Your task to perform on an android device: open app "Chime – Mobile Banking" (install if not already installed) Image 0: 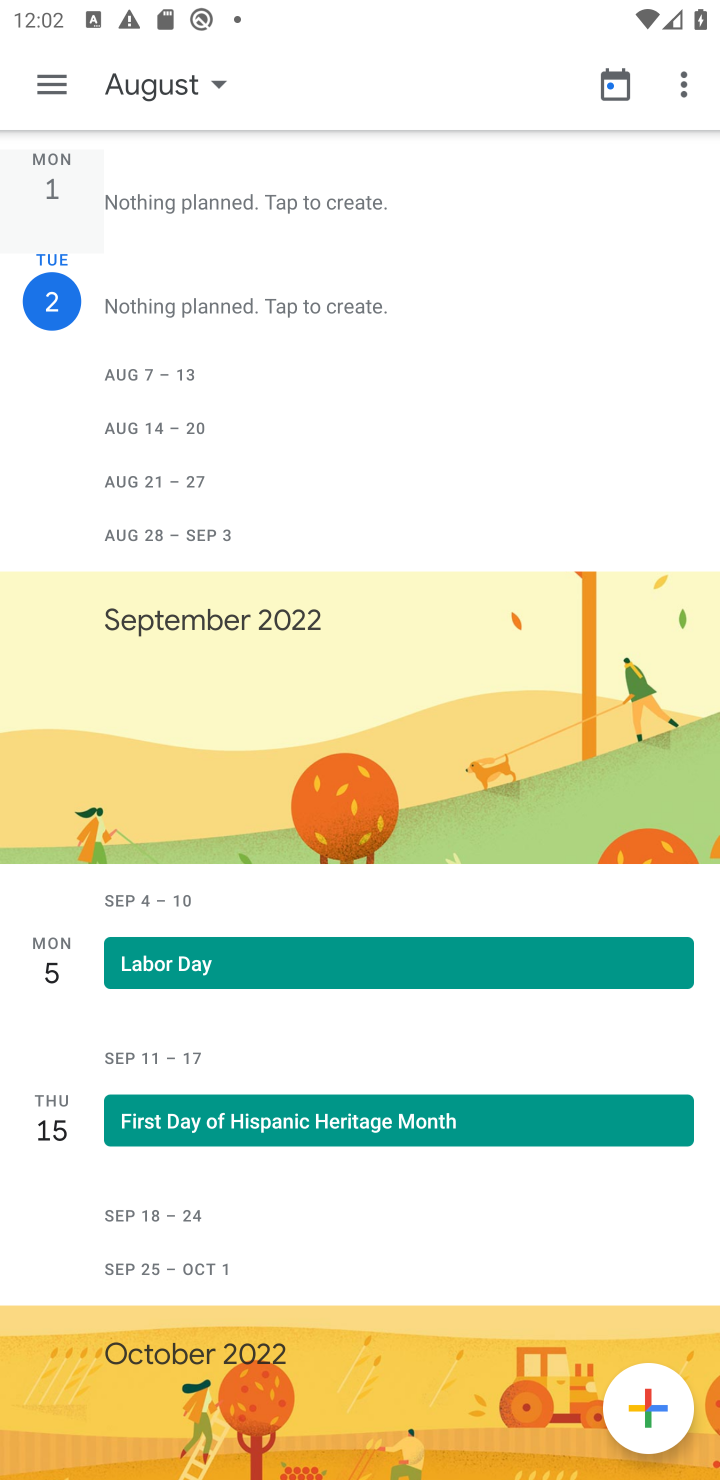
Step 0: press home button
Your task to perform on an android device: open app "Chime – Mobile Banking" (install if not already installed) Image 1: 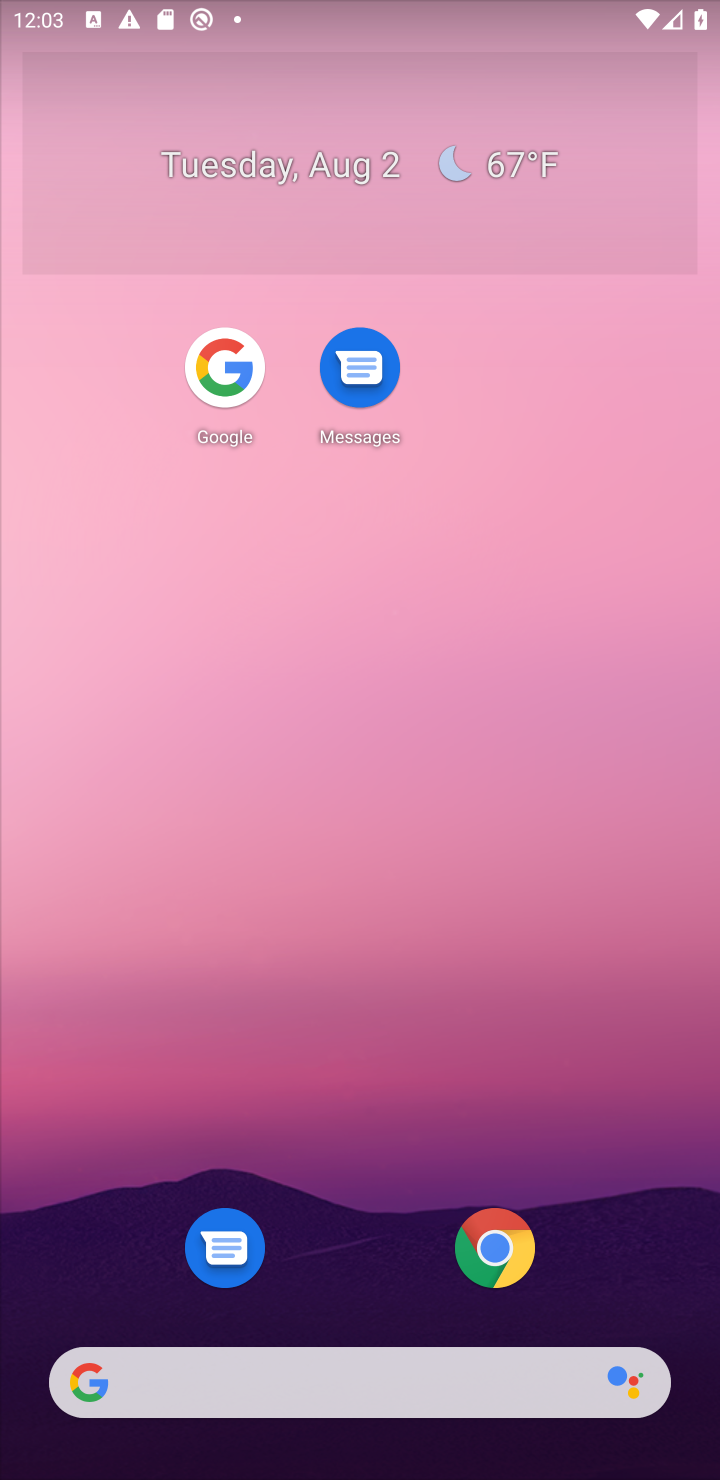
Step 1: drag from (396, 1056) to (478, 165)
Your task to perform on an android device: open app "Chime – Mobile Banking" (install if not already installed) Image 2: 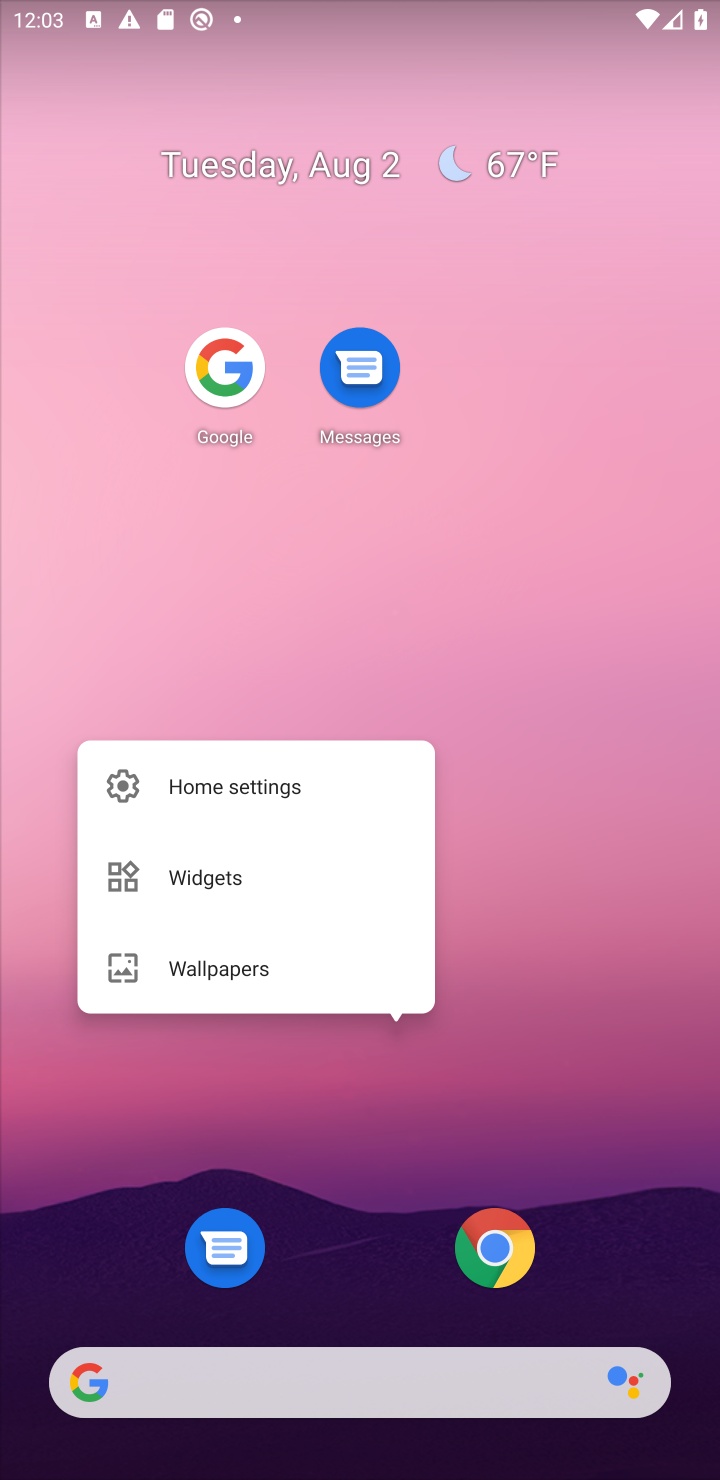
Step 2: click (587, 752)
Your task to perform on an android device: open app "Chime – Mobile Banking" (install if not already installed) Image 3: 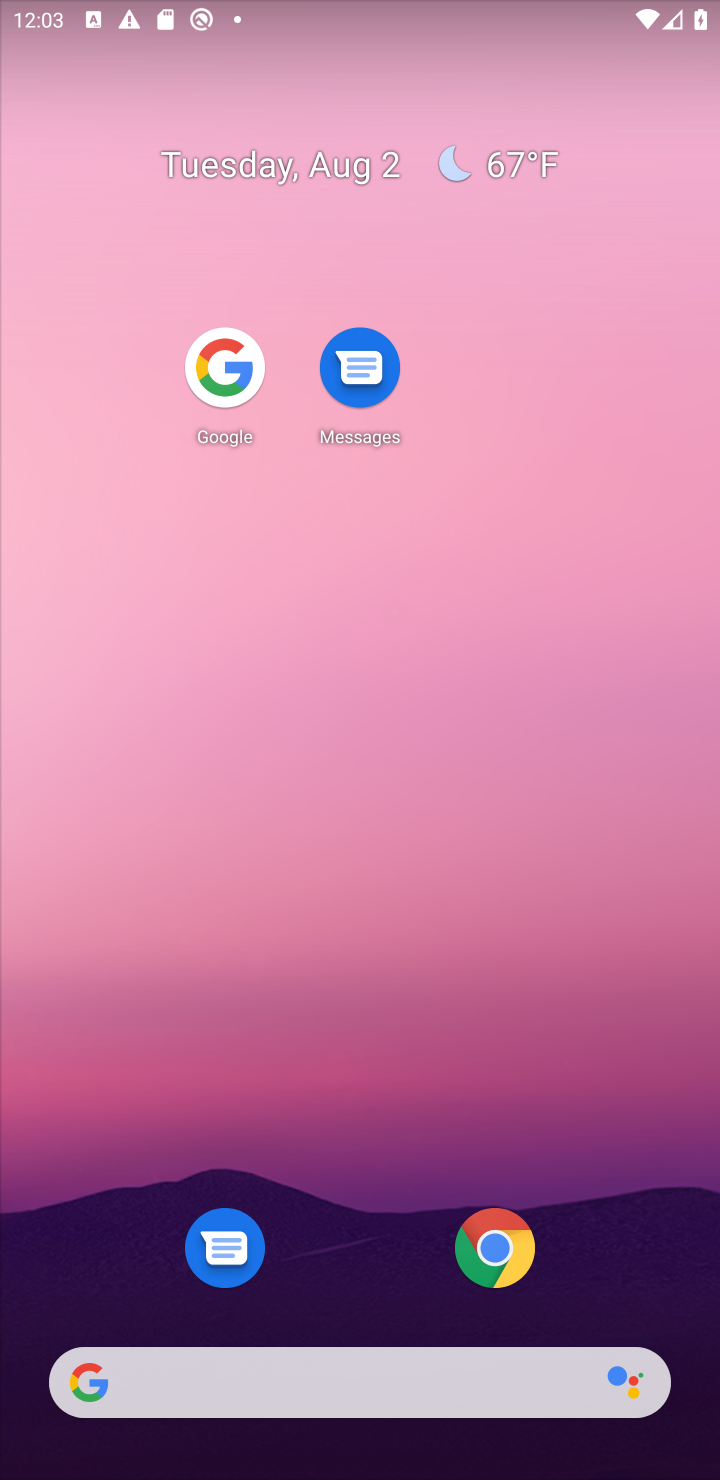
Step 3: drag from (382, 917) to (445, 293)
Your task to perform on an android device: open app "Chime – Mobile Banking" (install if not already installed) Image 4: 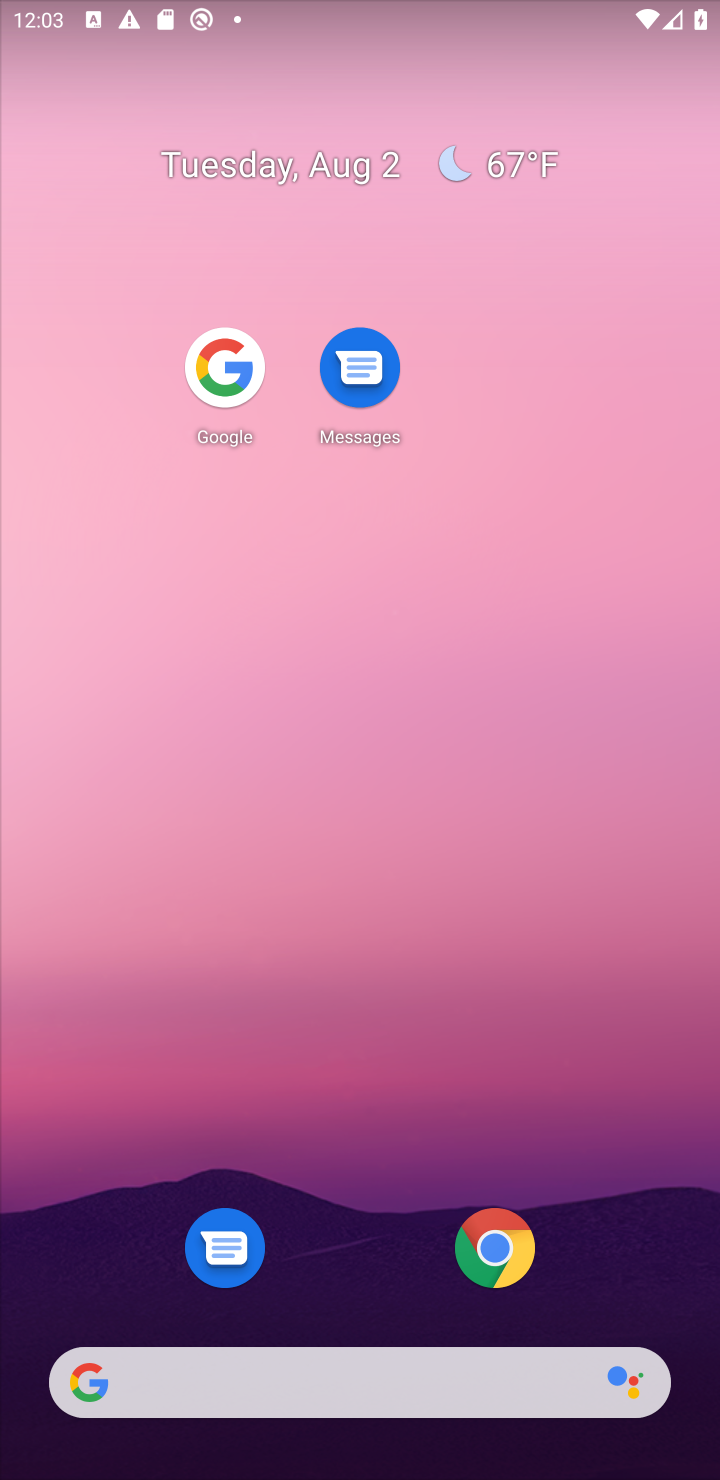
Step 4: drag from (402, 918) to (497, 227)
Your task to perform on an android device: open app "Chime – Mobile Banking" (install if not already installed) Image 5: 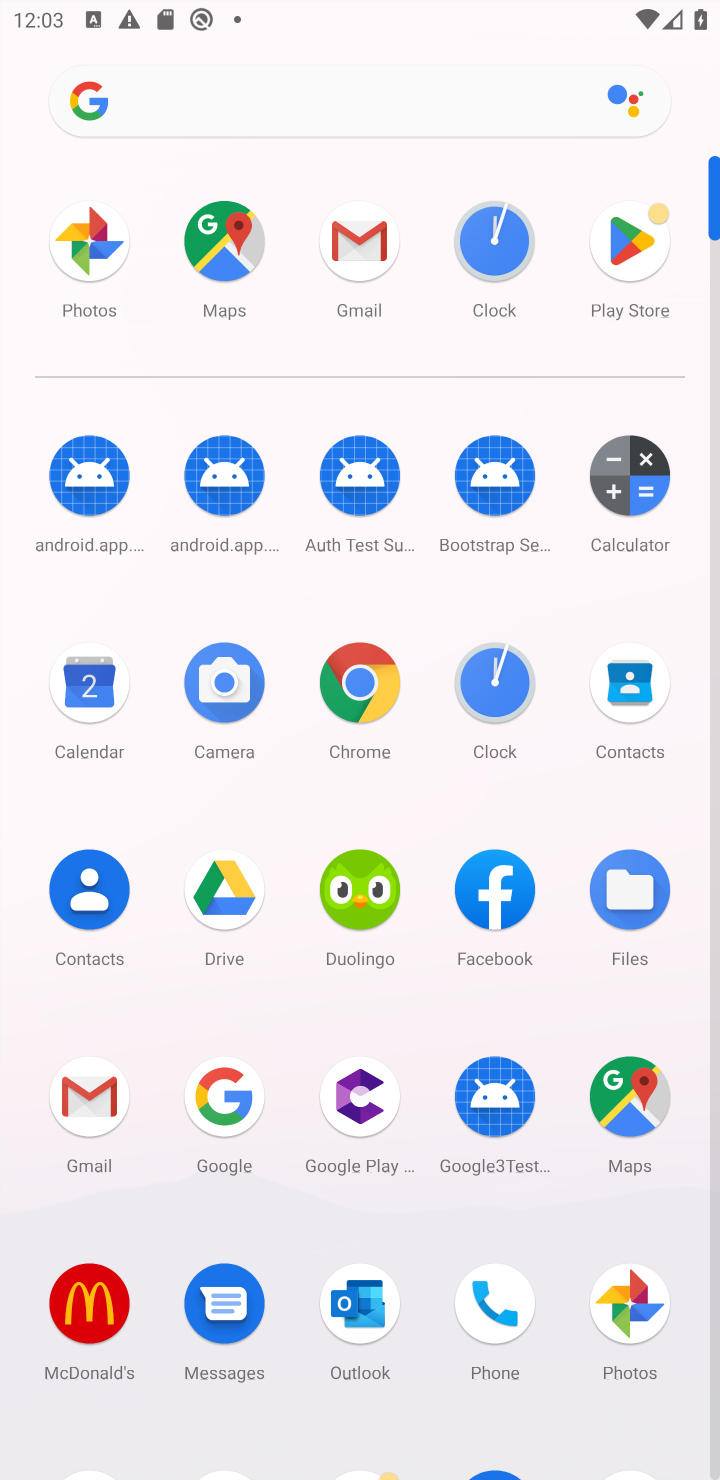
Step 5: drag from (393, 1195) to (403, 523)
Your task to perform on an android device: open app "Chime – Mobile Banking" (install if not already installed) Image 6: 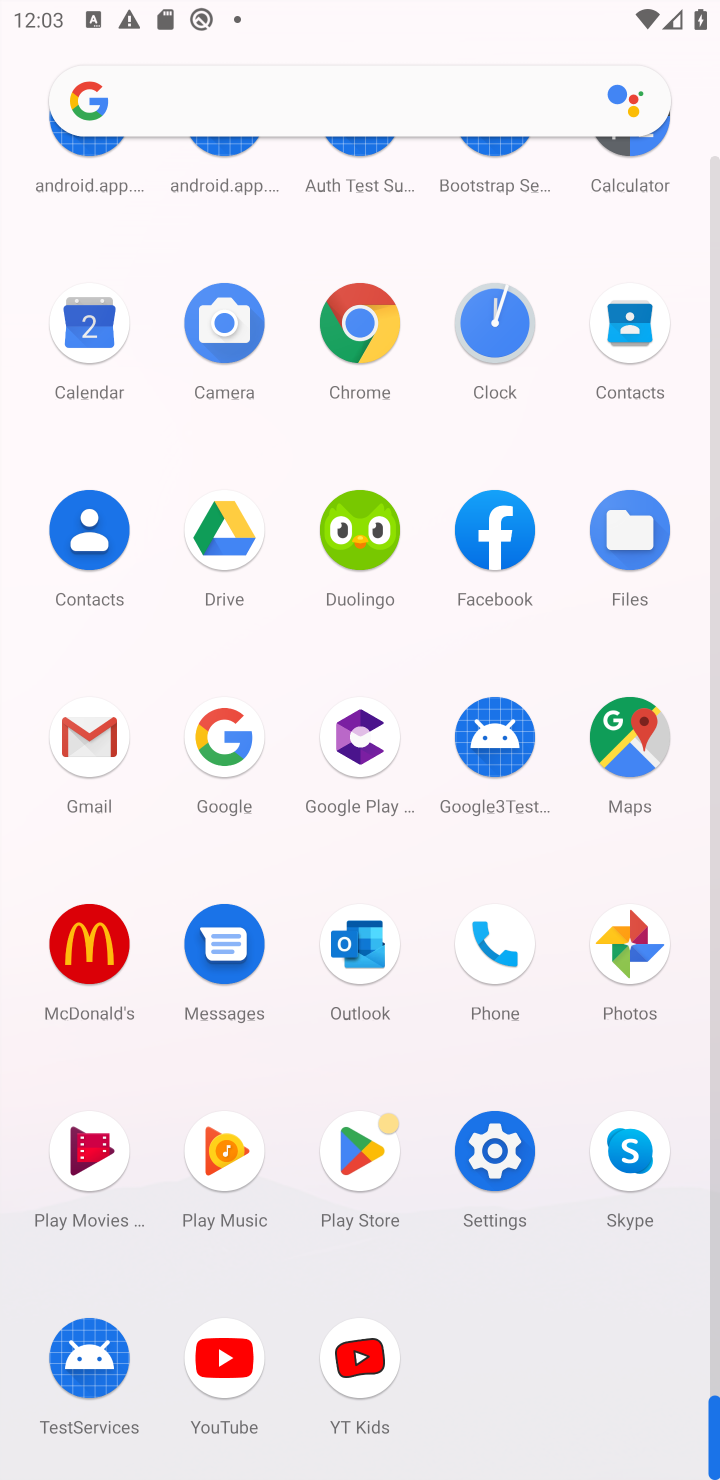
Step 6: click (362, 1157)
Your task to perform on an android device: open app "Chime – Mobile Banking" (install if not already installed) Image 7: 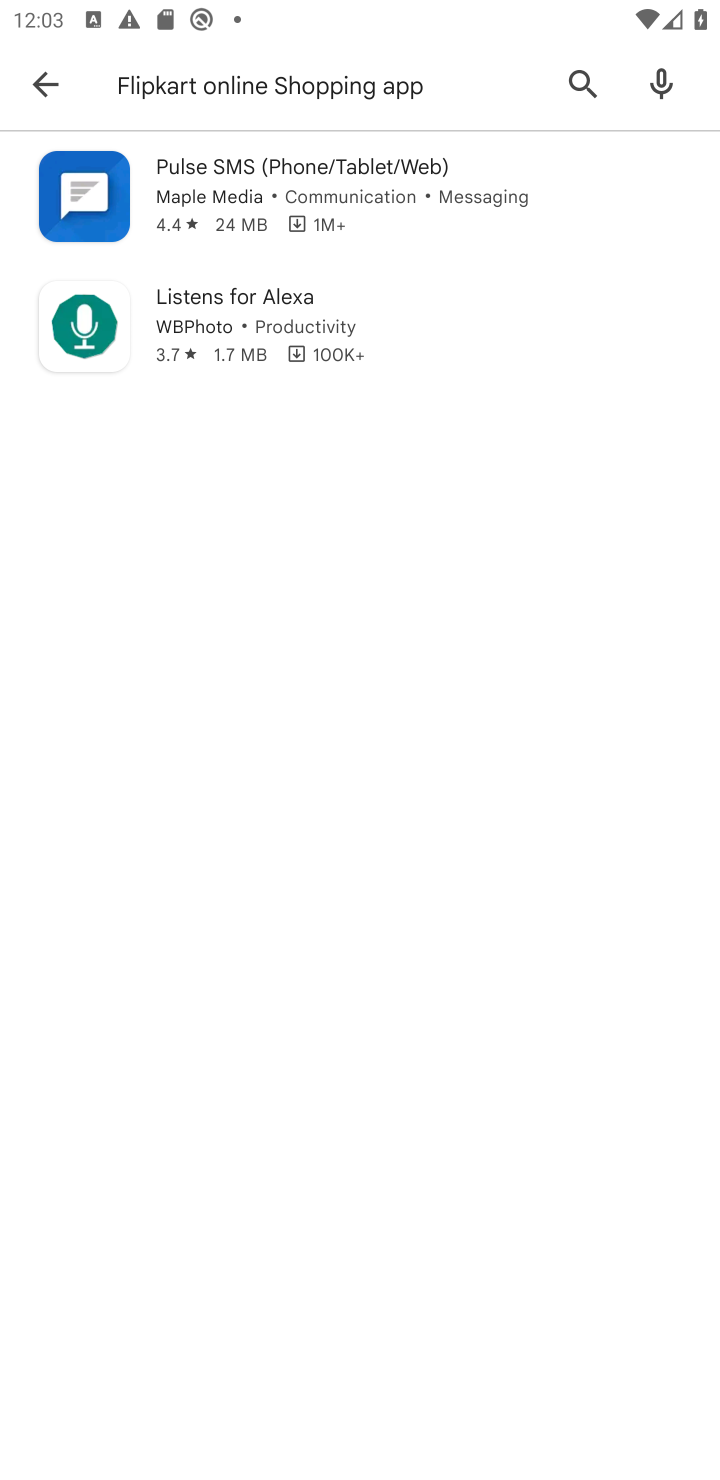
Step 7: click (390, 95)
Your task to perform on an android device: open app "Chime – Mobile Banking" (install if not already installed) Image 8: 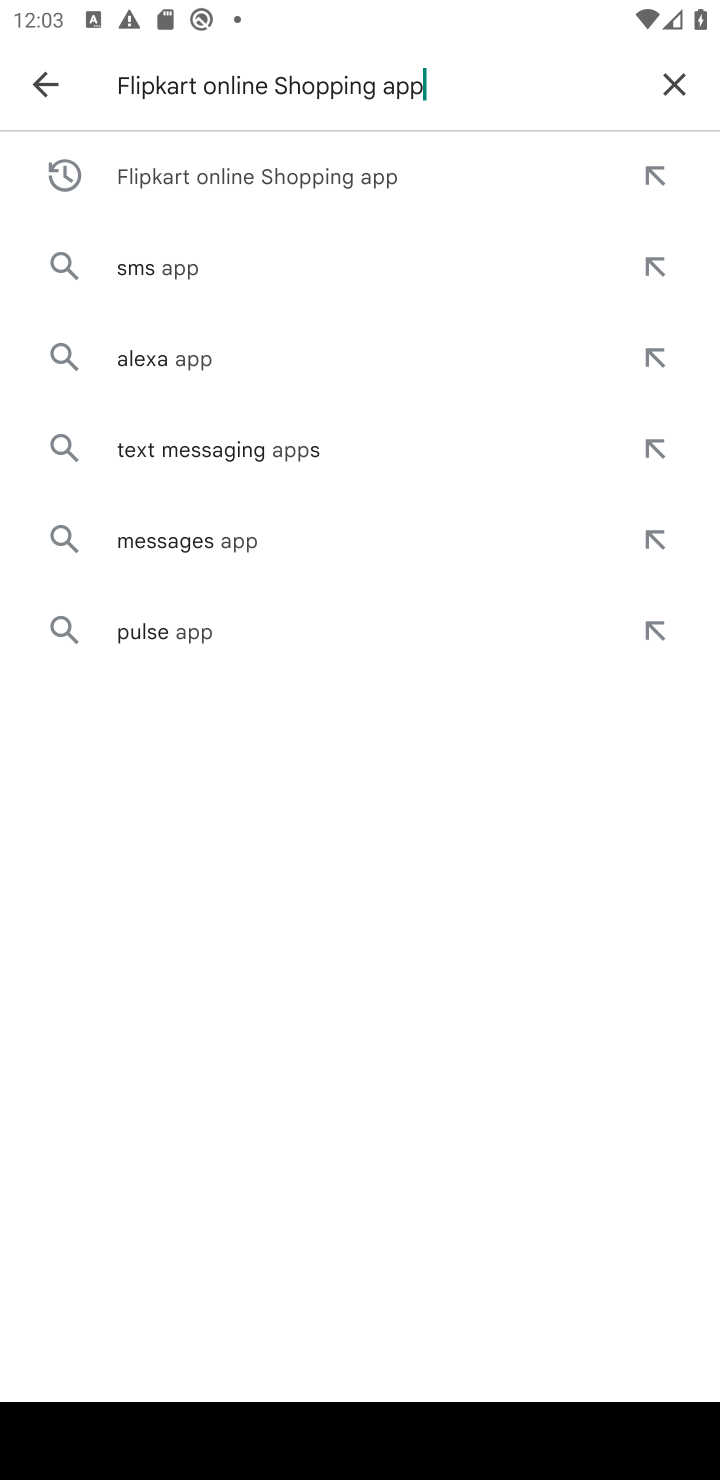
Step 8: click (677, 80)
Your task to perform on an android device: open app "Chime – Mobile Banking" (install if not already installed) Image 9: 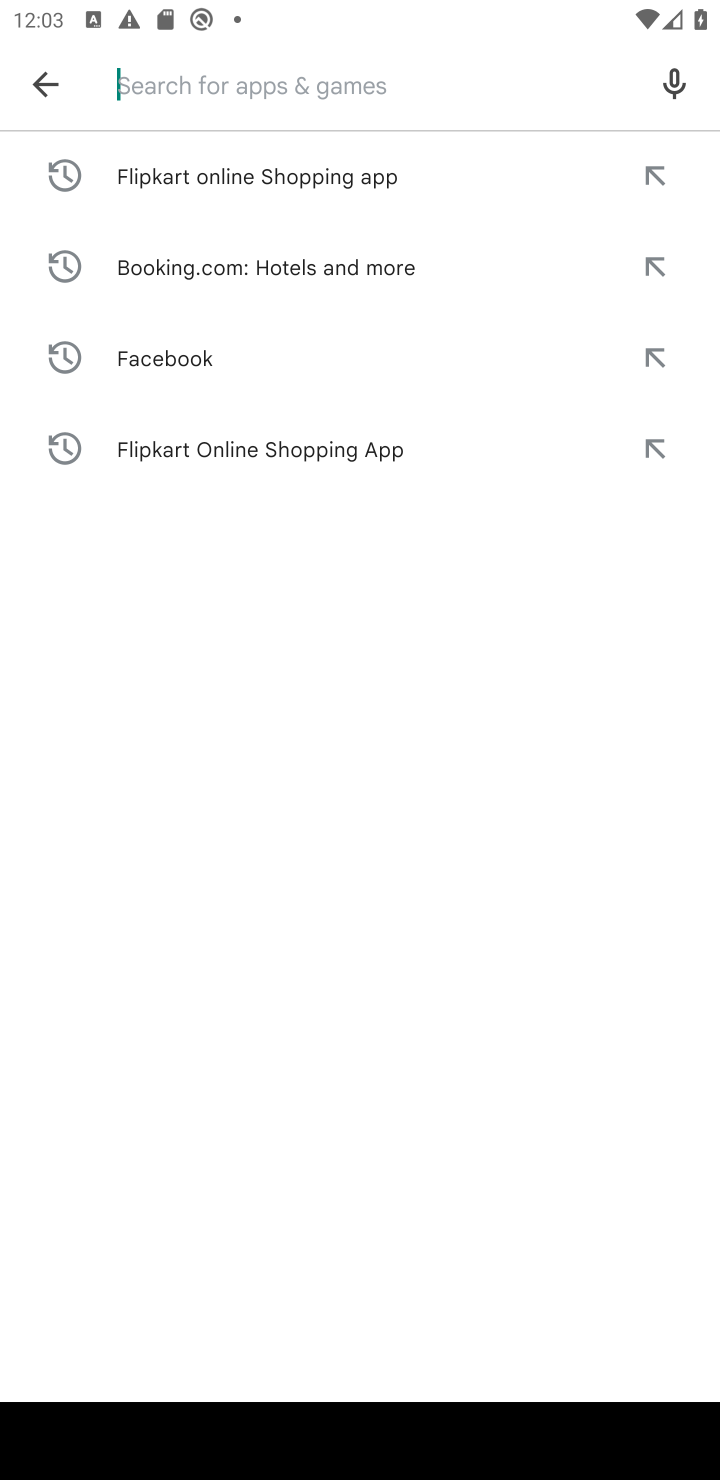
Step 9: type "Chime - Mobile Banking"
Your task to perform on an android device: open app "Chime – Mobile Banking" (install if not already installed) Image 10: 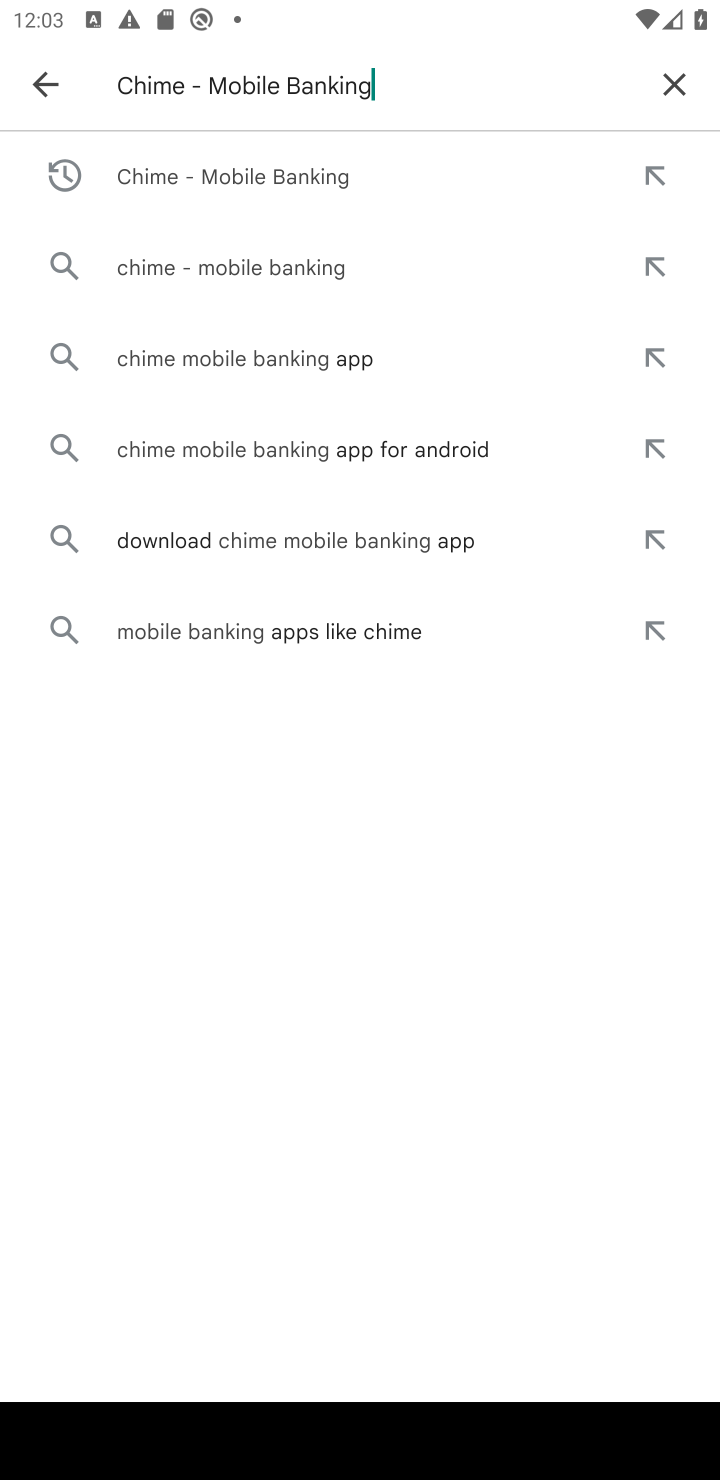
Step 10: press enter
Your task to perform on an android device: open app "Chime – Mobile Banking" (install if not already installed) Image 11: 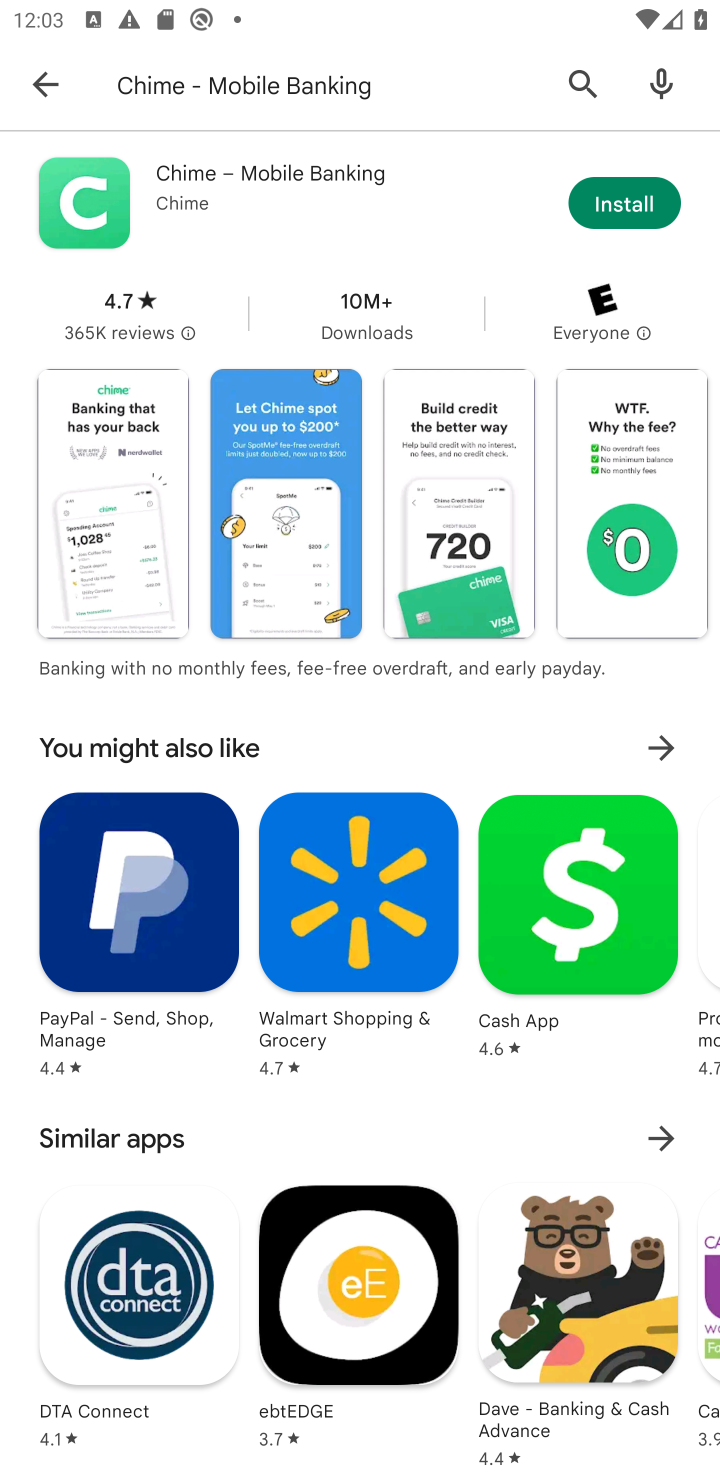
Step 11: click (648, 194)
Your task to perform on an android device: open app "Chime – Mobile Banking" (install if not already installed) Image 12: 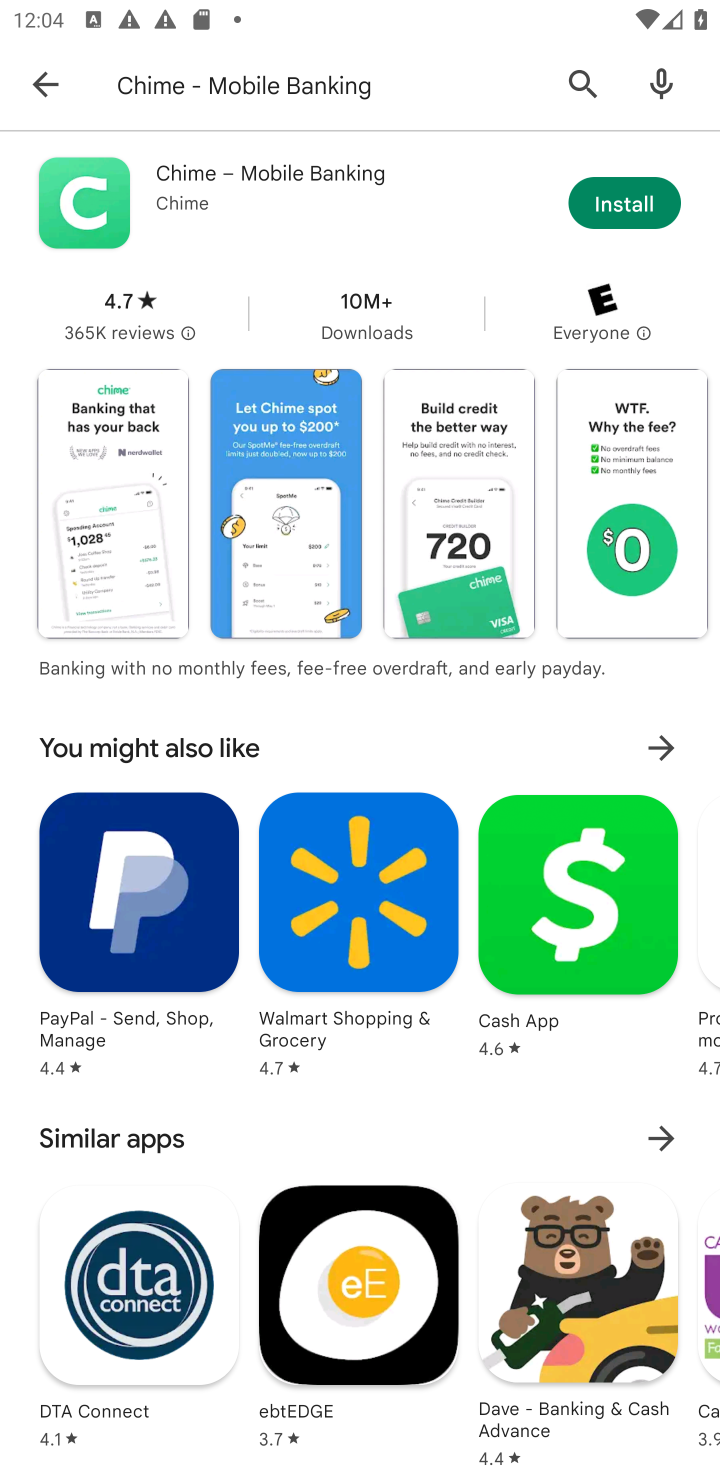
Step 12: click (648, 194)
Your task to perform on an android device: open app "Chime – Mobile Banking" (install if not already installed) Image 13: 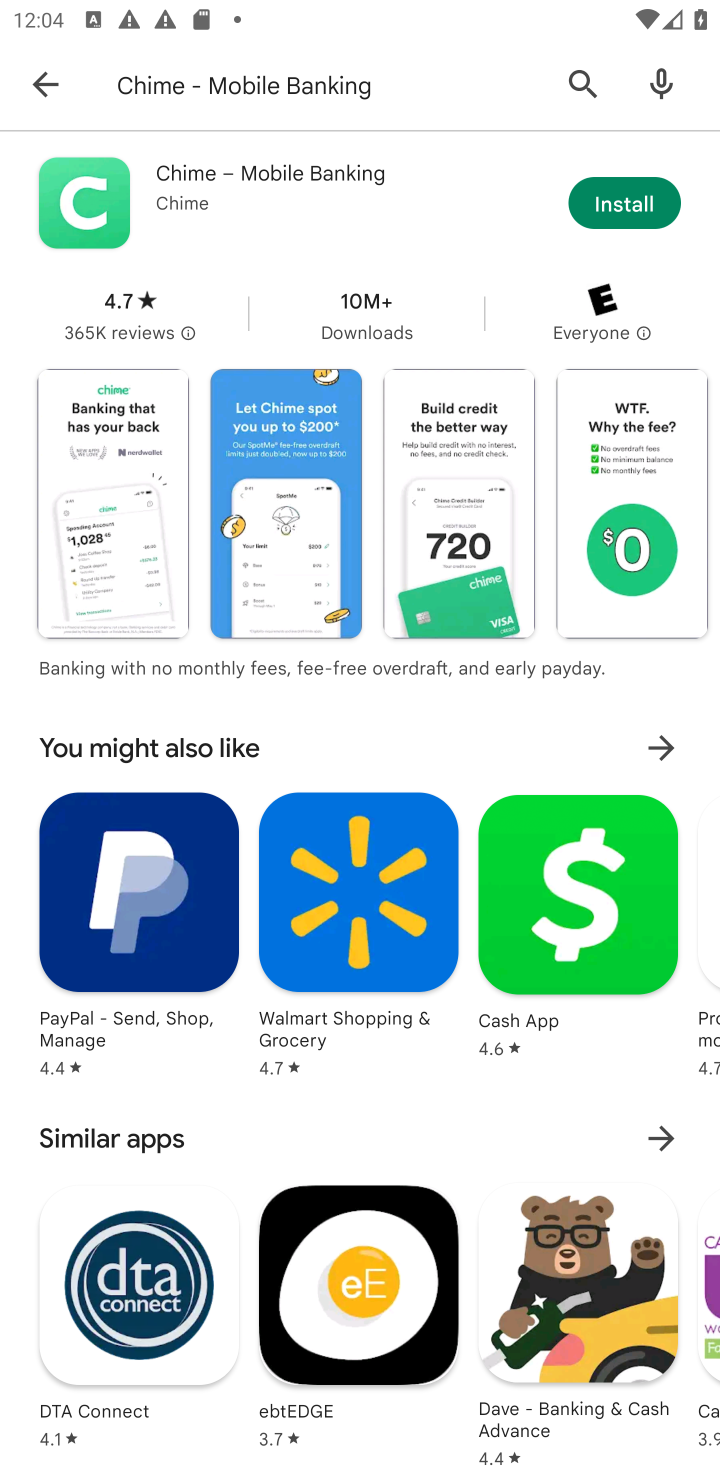
Step 13: task complete